Your task to perform on an android device: Open Chrome and go to settings Image 0: 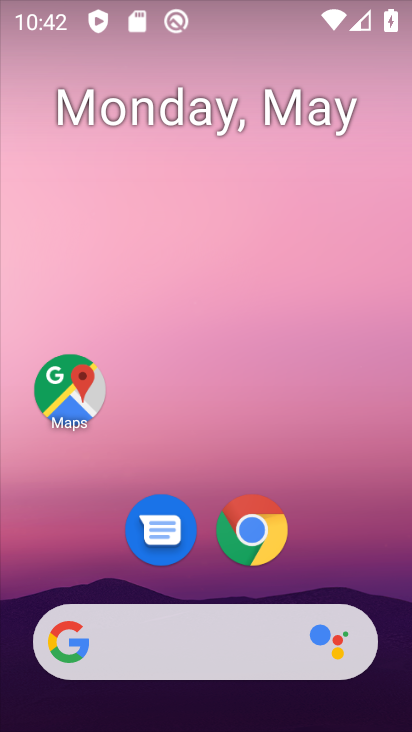
Step 0: click (253, 531)
Your task to perform on an android device: Open Chrome and go to settings Image 1: 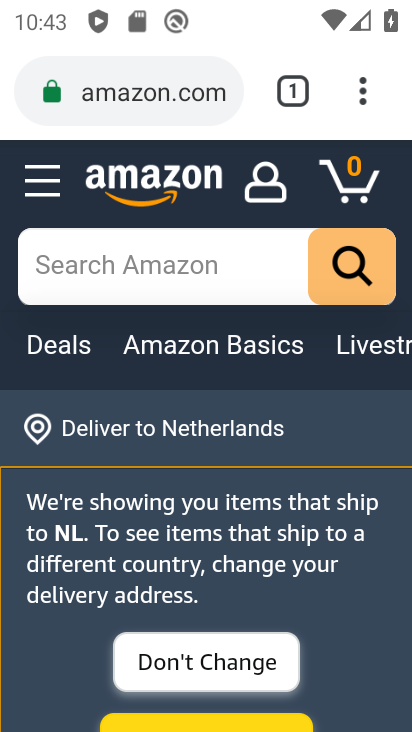
Step 1: click (362, 87)
Your task to perform on an android device: Open Chrome and go to settings Image 2: 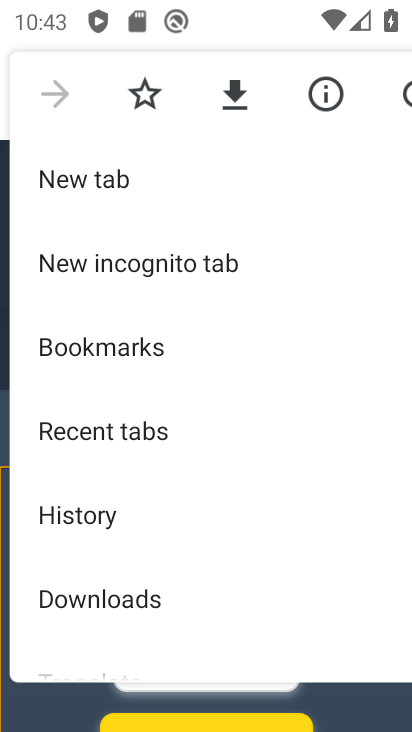
Step 2: drag from (143, 478) to (191, 340)
Your task to perform on an android device: Open Chrome and go to settings Image 3: 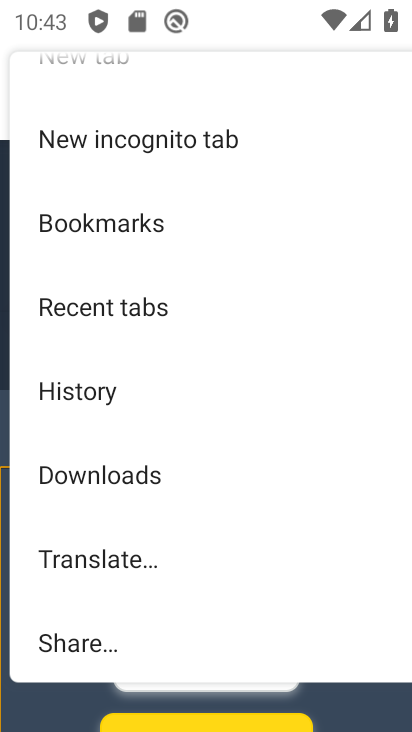
Step 3: drag from (107, 519) to (212, 391)
Your task to perform on an android device: Open Chrome and go to settings Image 4: 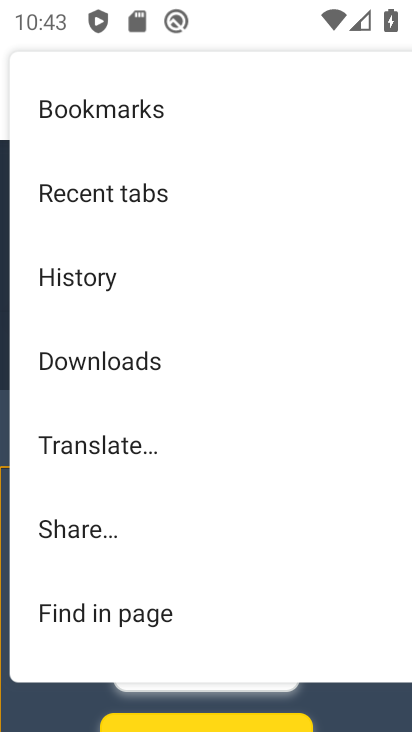
Step 4: drag from (127, 547) to (194, 427)
Your task to perform on an android device: Open Chrome and go to settings Image 5: 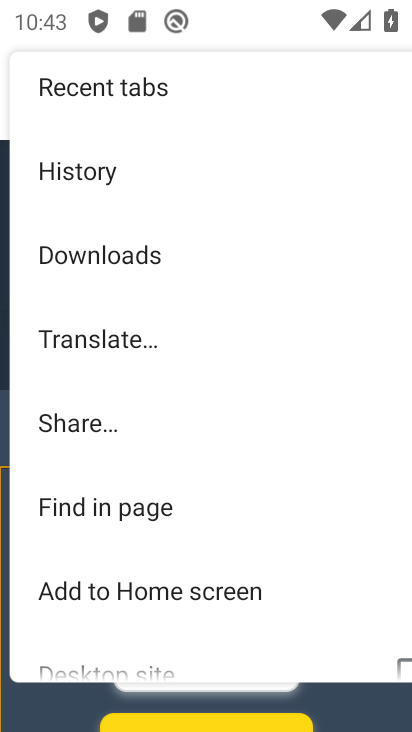
Step 5: drag from (122, 552) to (167, 429)
Your task to perform on an android device: Open Chrome and go to settings Image 6: 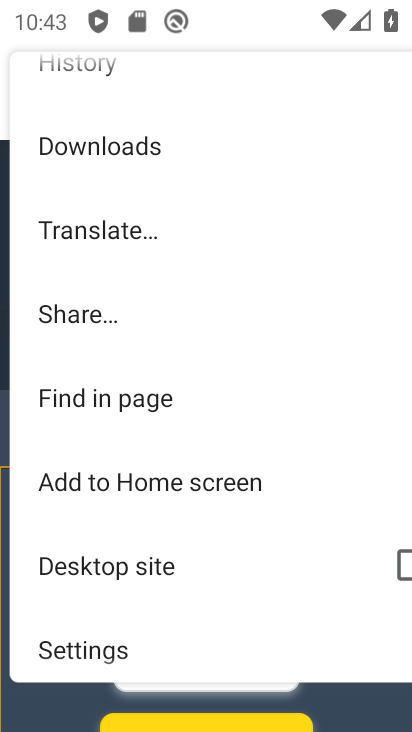
Step 6: drag from (121, 613) to (232, 454)
Your task to perform on an android device: Open Chrome and go to settings Image 7: 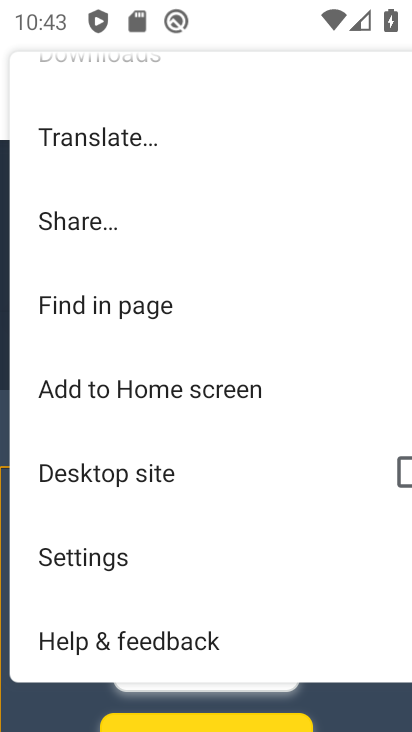
Step 7: click (115, 557)
Your task to perform on an android device: Open Chrome and go to settings Image 8: 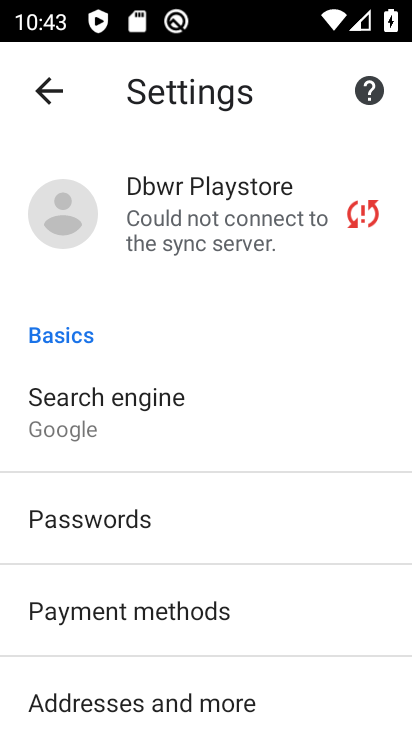
Step 8: task complete